Your task to perform on an android device: empty trash in the gmail app Image 0: 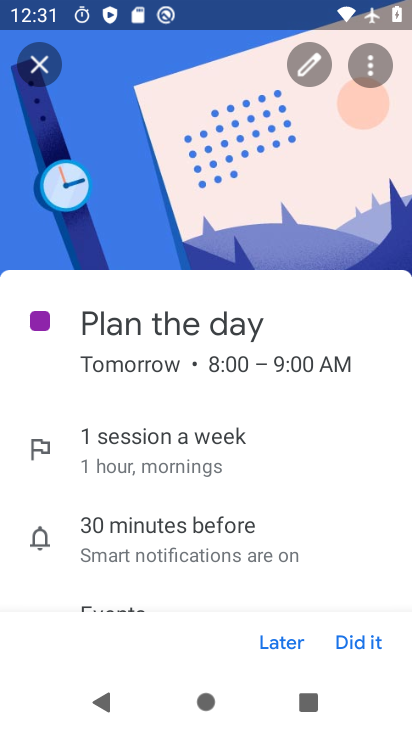
Step 0: press home button
Your task to perform on an android device: empty trash in the gmail app Image 1: 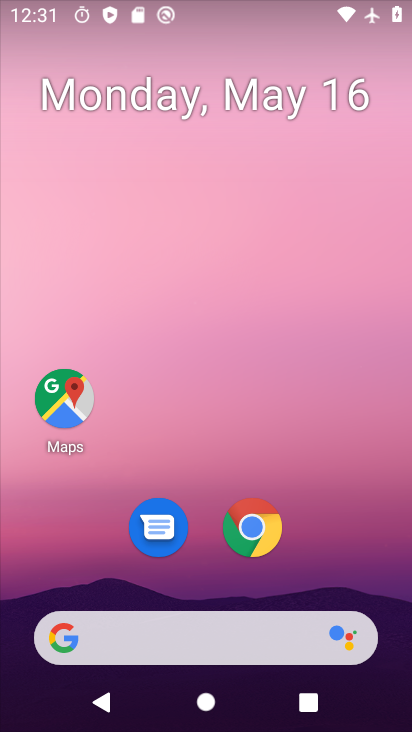
Step 1: drag from (173, 639) to (397, 135)
Your task to perform on an android device: empty trash in the gmail app Image 2: 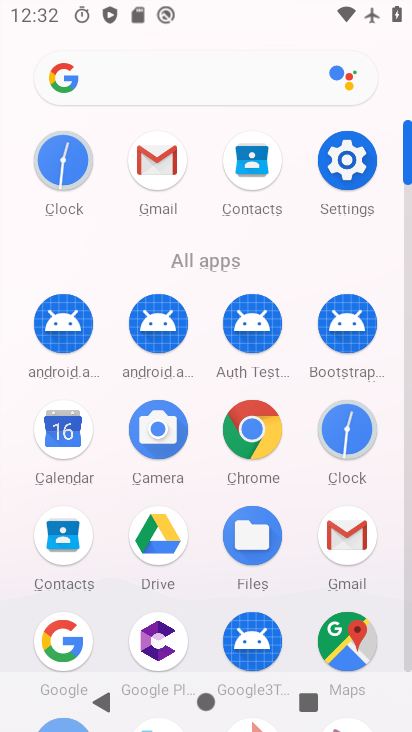
Step 2: click (155, 178)
Your task to perform on an android device: empty trash in the gmail app Image 3: 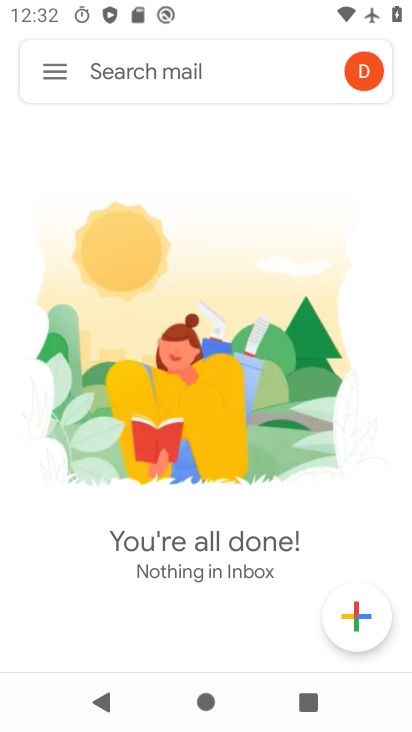
Step 3: click (49, 69)
Your task to perform on an android device: empty trash in the gmail app Image 4: 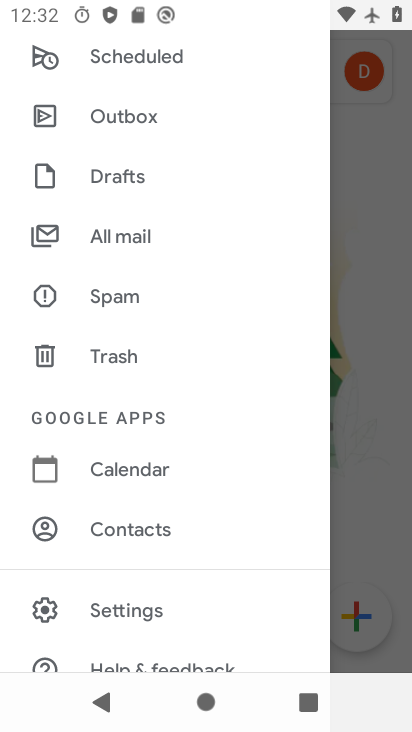
Step 4: click (133, 354)
Your task to perform on an android device: empty trash in the gmail app Image 5: 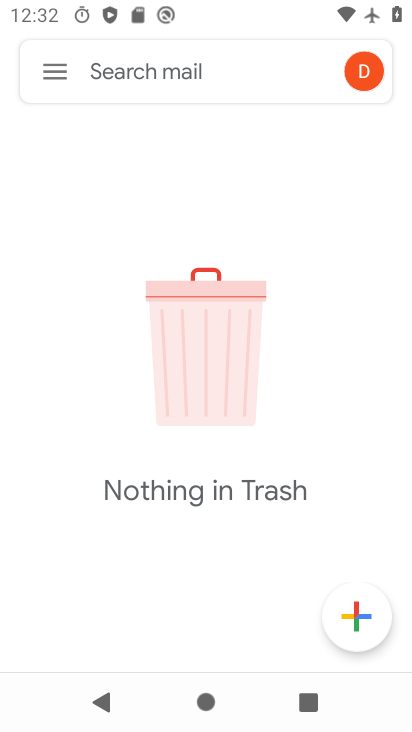
Step 5: task complete